Your task to perform on an android device: check android version Image 0: 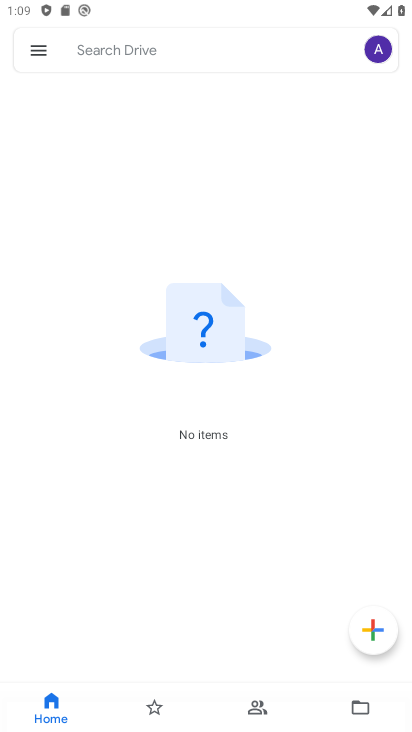
Step 0: press home button
Your task to perform on an android device: check android version Image 1: 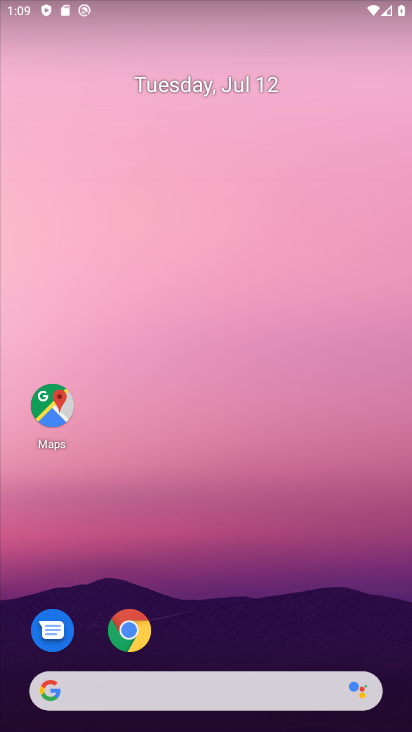
Step 1: drag from (200, 666) to (185, 73)
Your task to perform on an android device: check android version Image 2: 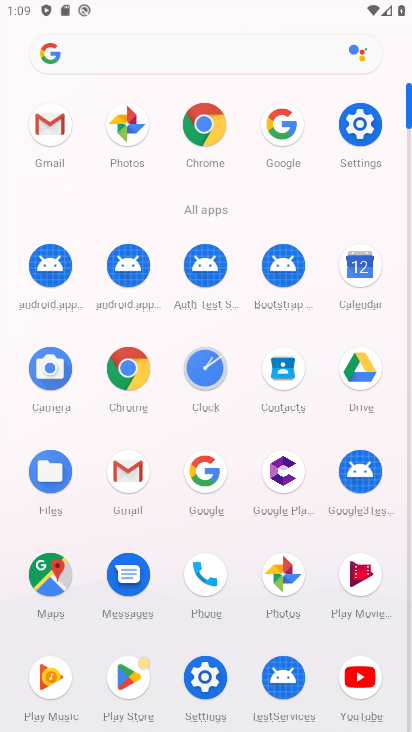
Step 2: click (359, 137)
Your task to perform on an android device: check android version Image 3: 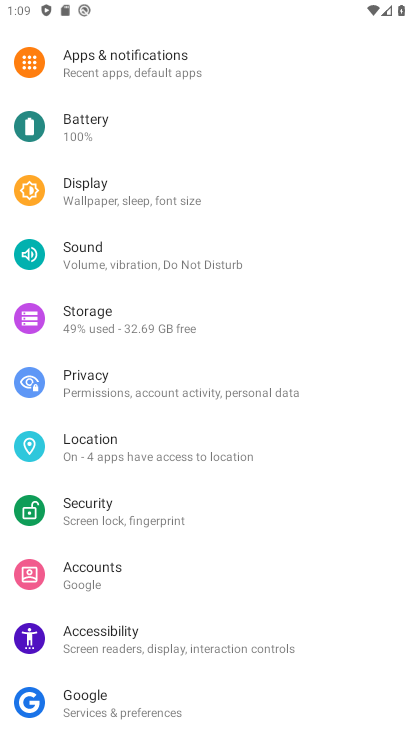
Step 3: drag from (199, 633) to (103, 223)
Your task to perform on an android device: check android version Image 4: 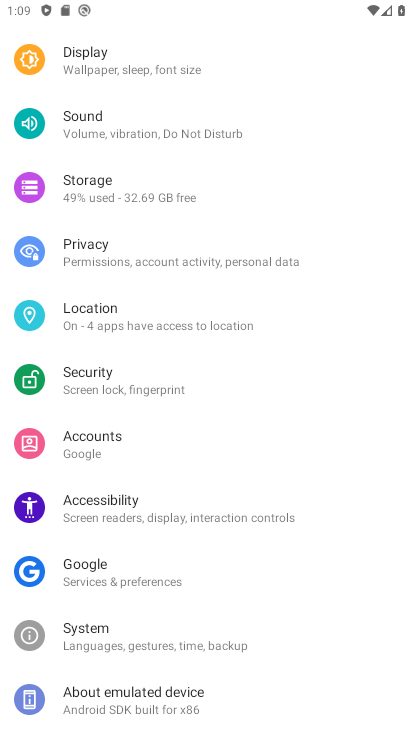
Step 4: click (78, 680)
Your task to perform on an android device: check android version Image 5: 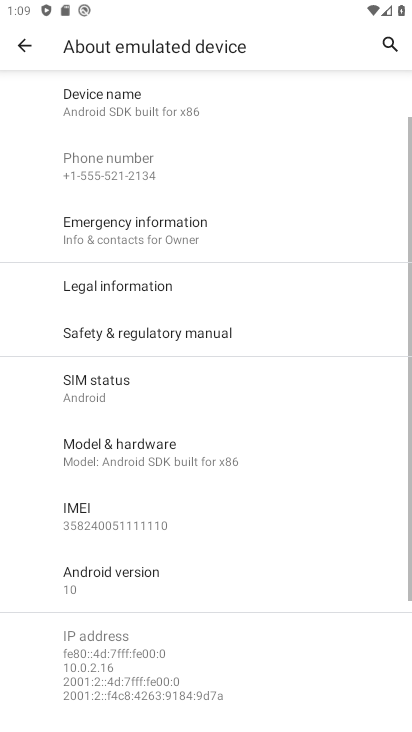
Step 5: click (91, 612)
Your task to perform on an android device: check android version Image 6: 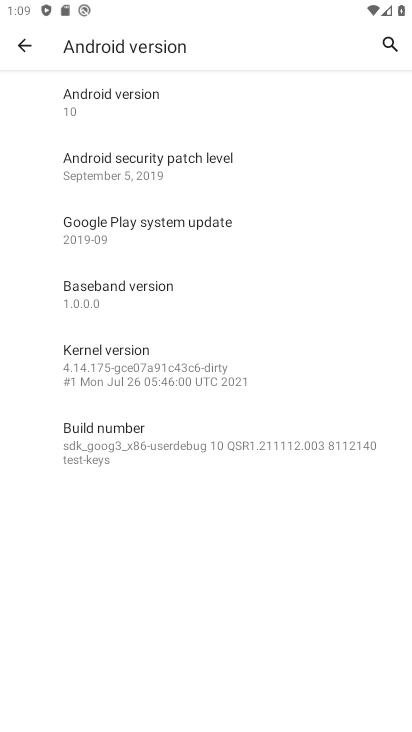
Step 6: task complete